Your task to perform on an android device: toggle improve location accuracy Image 0: 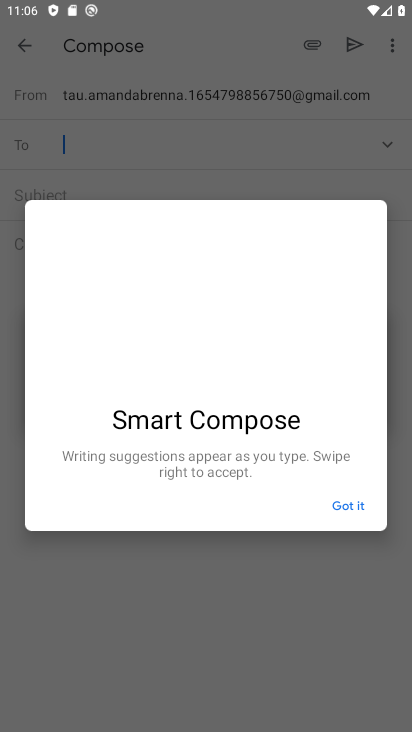
Step 0: press home button
Your task to perform on an android device: toggle improve location accuracy Image 1: 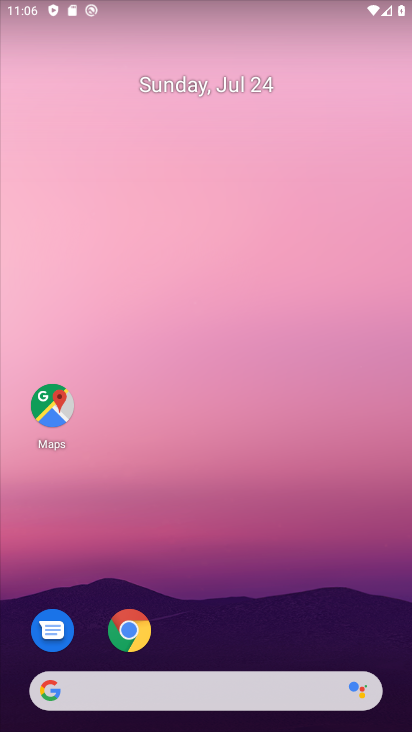
Step 1: drag from (262, 628) to (271, 32)
Your task to perform on an android device: toggle improve location accuracy Image 2: 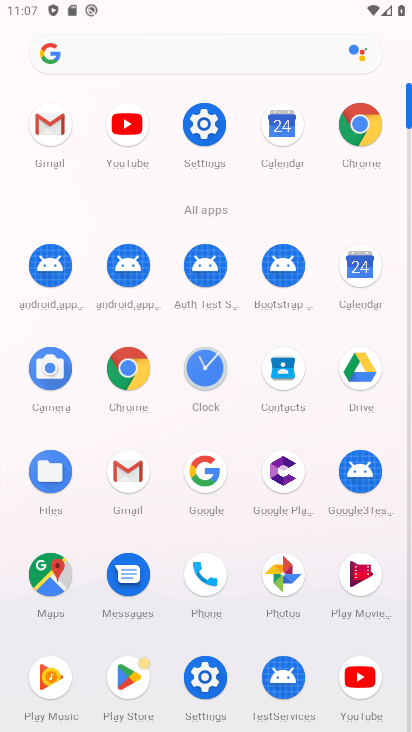
Step 2: click (206, 678)
Your task to perform on an android device: toggle improve location accuracy Image 3: 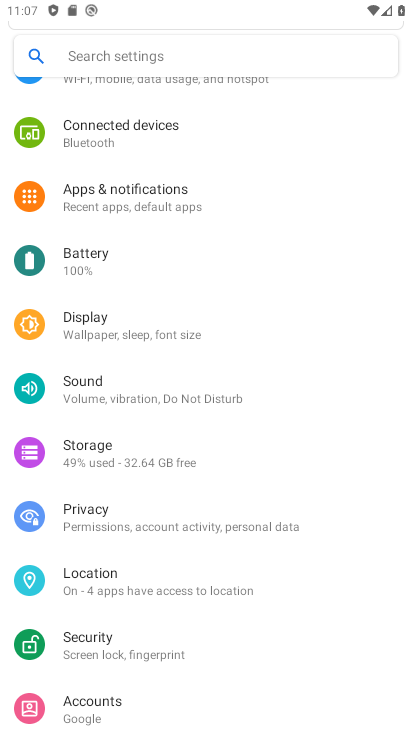
Step 3: click (73, 578)
Your task to perform on an android device: toggle improve location accuracy Image 4: 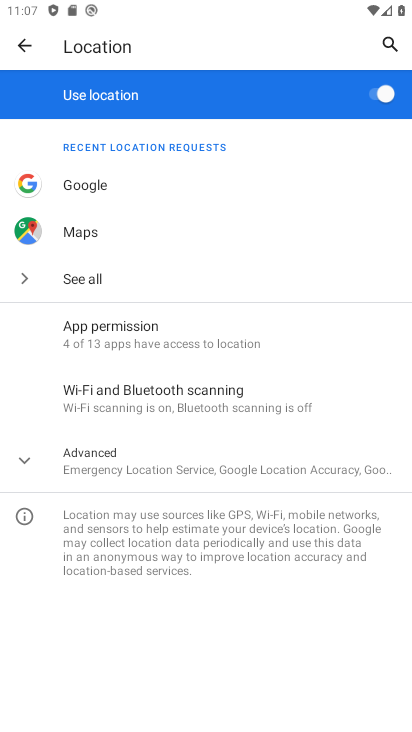
Step 4: click (73, 578)
Your task to perform on an android device: toggle improve location accuracy Image 5: 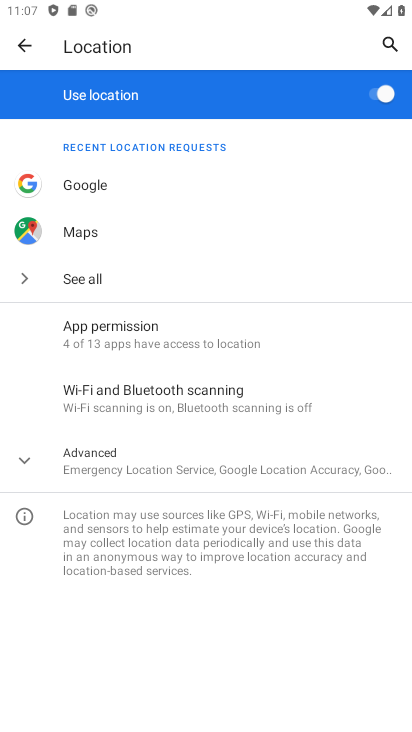
Step 5: click (184, 461)
Your task to perform on an android device: toggle improve location accuracy Image 6: 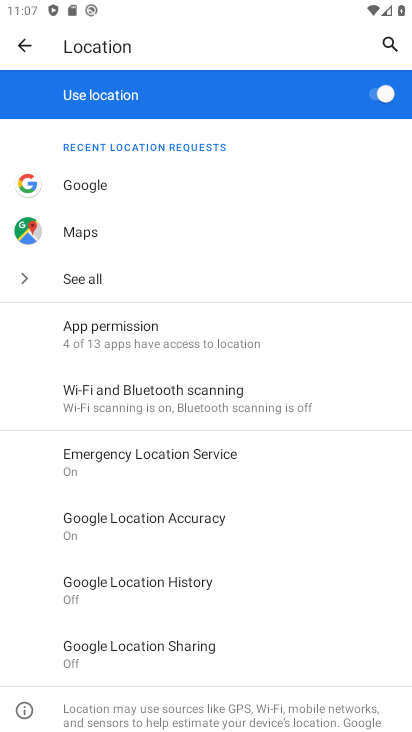
Step 6: click (140, 514)
Your task to perform on an android device: toggle improve location accuracy Image 7: 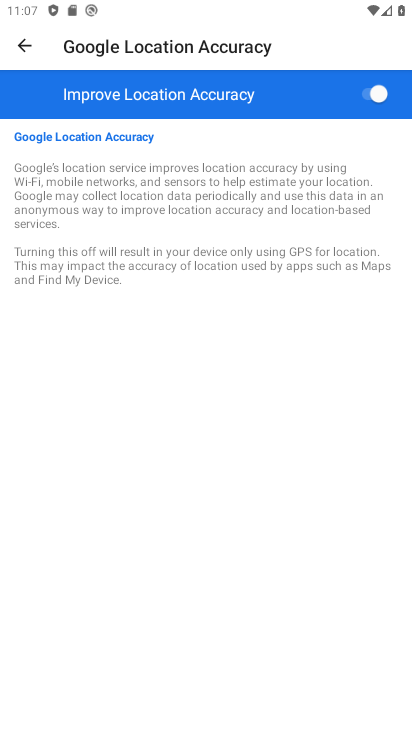
Step 7: click (360, 88)
Your task to perform on an android device: toggle improve location accuracy Image 8: 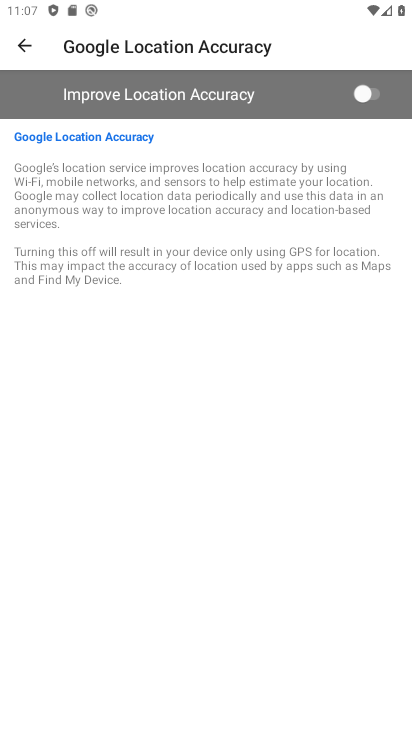
Step 8: task complete